Your task to perform on an android device: Open internet settings Image 0: 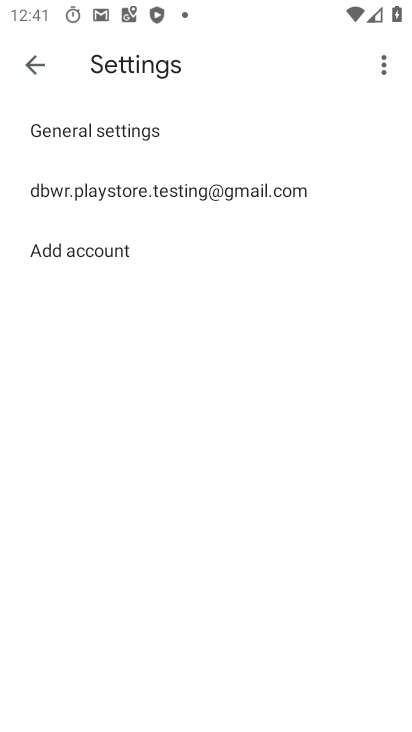
Step 0: press home button
Your task to perform on an android device: Open internet settings Image 1: 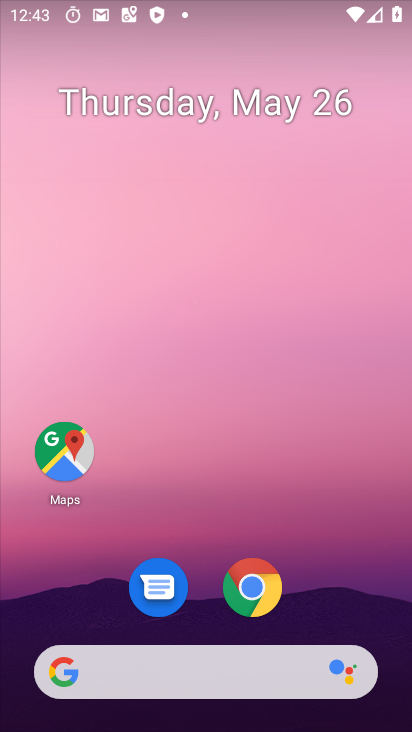
Step 1: drag from (189, 697) to (136, 81)
Your task to perform on an android device: Open internet settings Image 2: 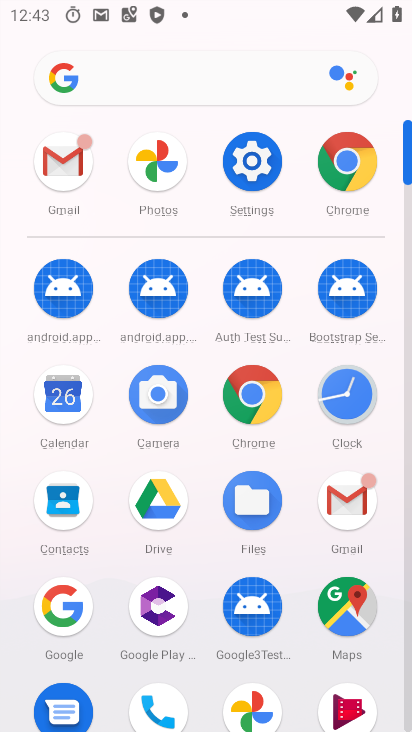
Step 2: click (240, 159)
Your task to perform on an android device: Open internet settings Image 3: 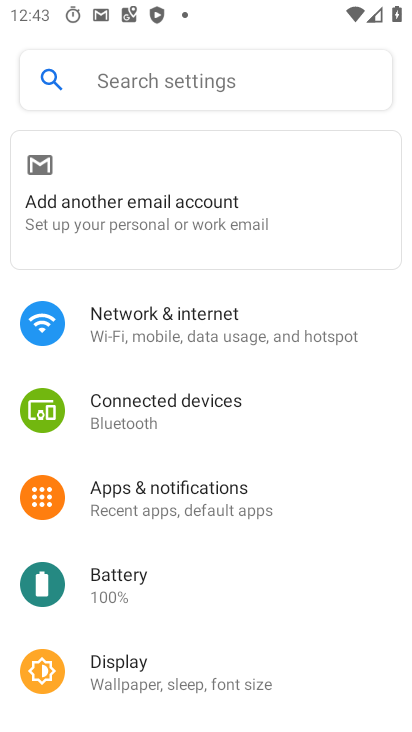
Step 3: click (158, 314)
Your task to perform on an android device: Open internet settings Image 4: 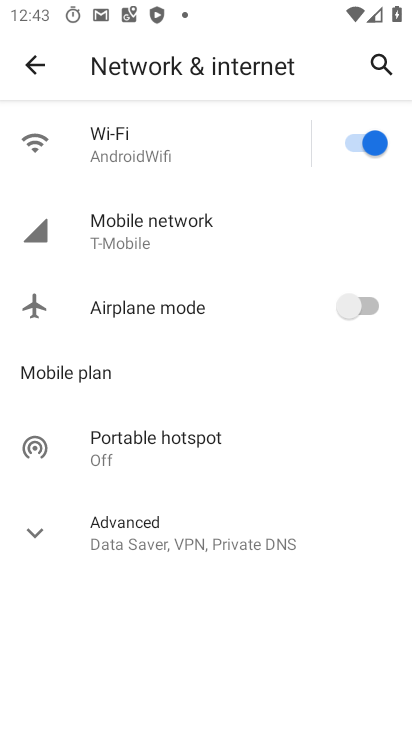
Step 4: task complete